Your task to perform on an android device: Open battery settings Image 0: 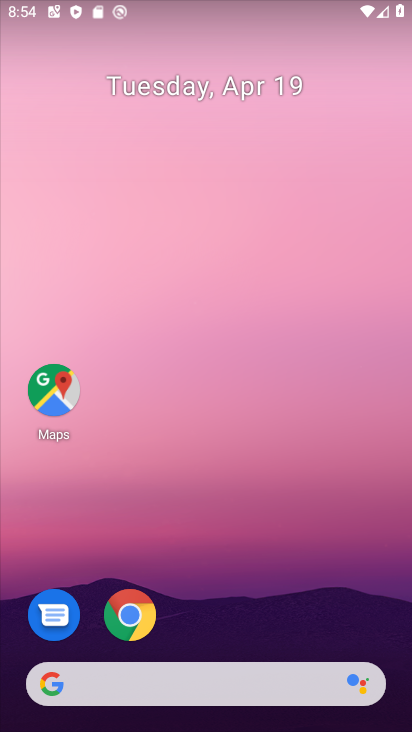
Step 0: drag from (329, 610) to (211, 3)
Your task to perform on an android device: Open battery settings Image 1: 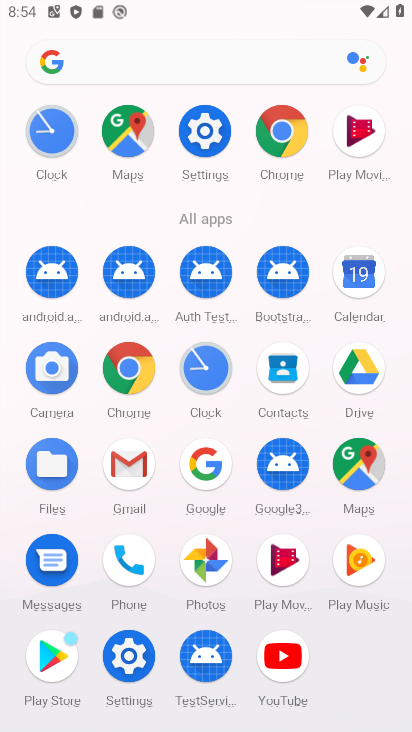
Step 1: click (120, 670)
Your task to perform on an android device: Open battery settings Image 2: 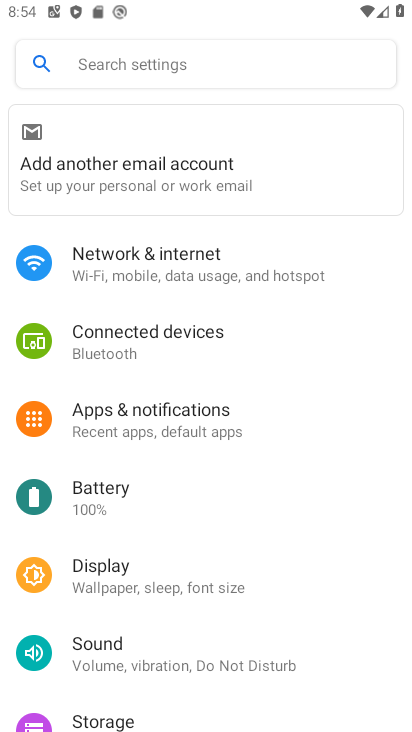
Step 2: click (61, 482)
Your task to perform on an android device: Open battery settings Image 3: 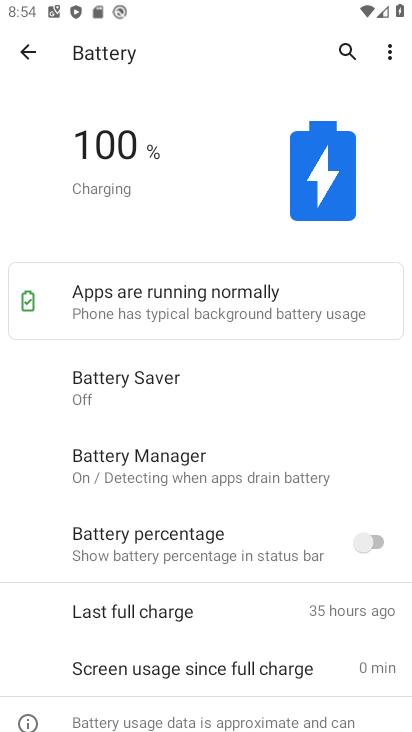
Step 3: task complete